Your task to perform on an android device: clear history in the chrome app Image 0: 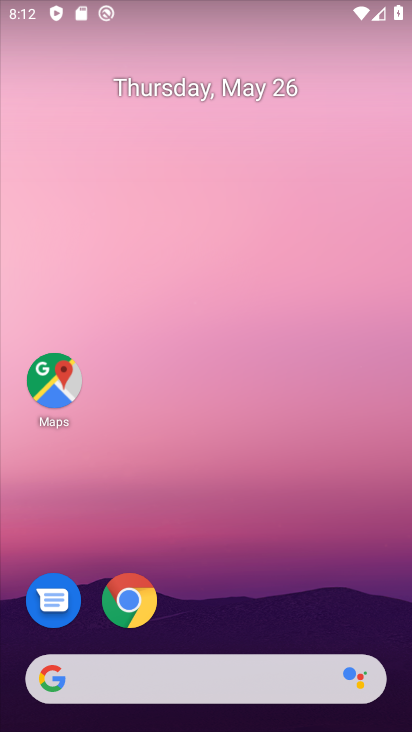
Step 0: click (131, 597)
Your task to perform on an android device: clear history in the chrome app Image 1: 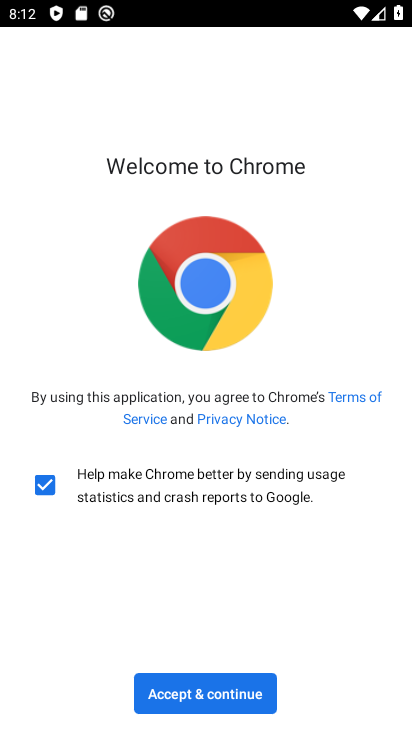
Step 1: click (225, 697)
Your task to perform on an android device: clear history in the chrome app Image 2: 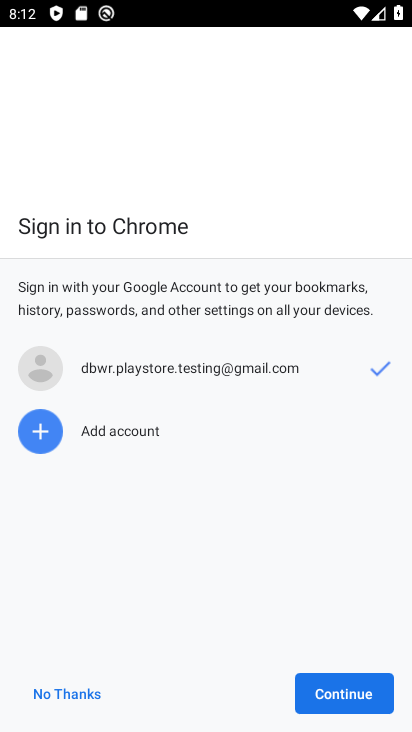
Step 2: click (360, 689)
Your task to perform on an android device: clear history in the chrome app Image 3: 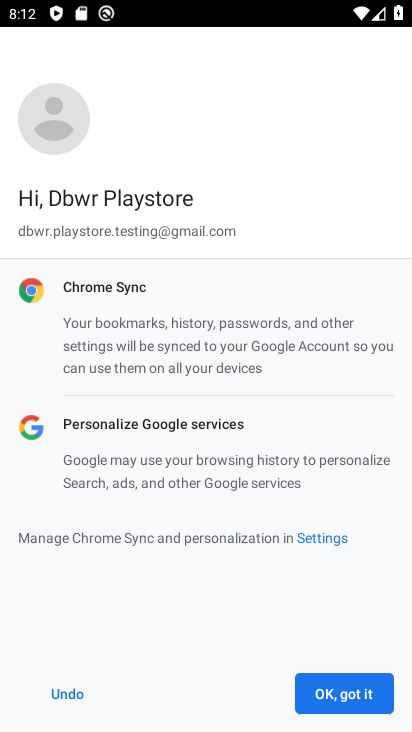
Step 3: click (360, 689)
Your task to perform on an android device: clear history in the chrome app Image 4: 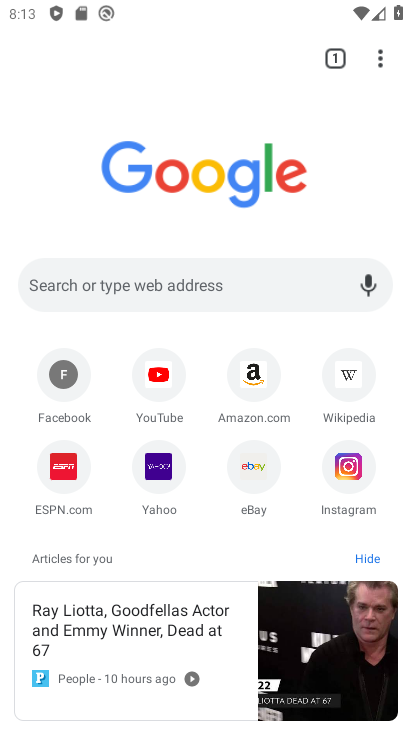
Step 4: click (372, 60)
Your task to perform on an android device: clear history in the chrome app Image 5: 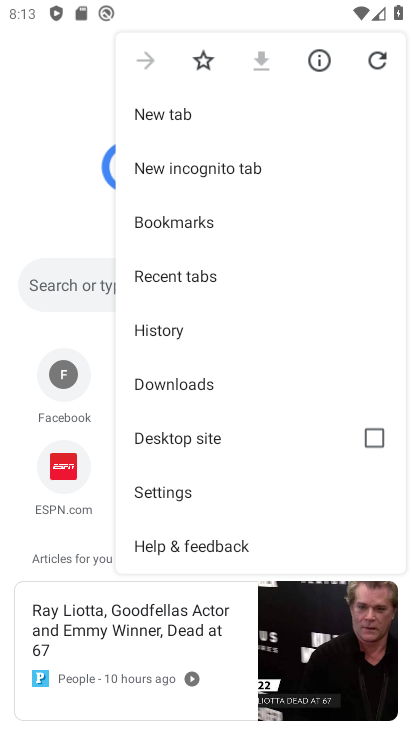
Step 5: click (188, 336)
Your task to perform on an android device: clear history in the chrome app Image 6: 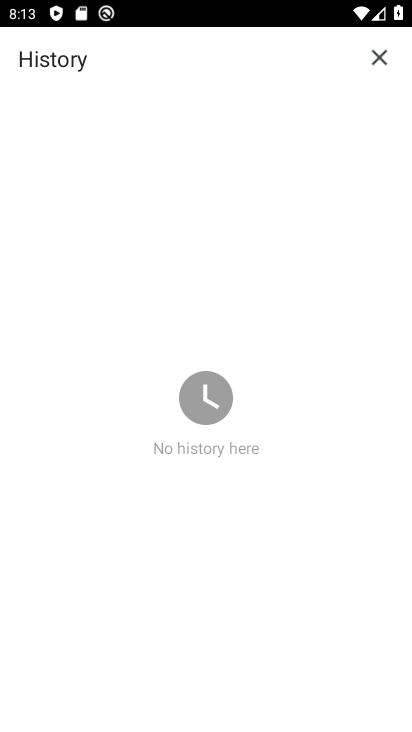
Step 6: task complete